Your task to perform on an android device: toggle javascript in the chrome app Image 0: 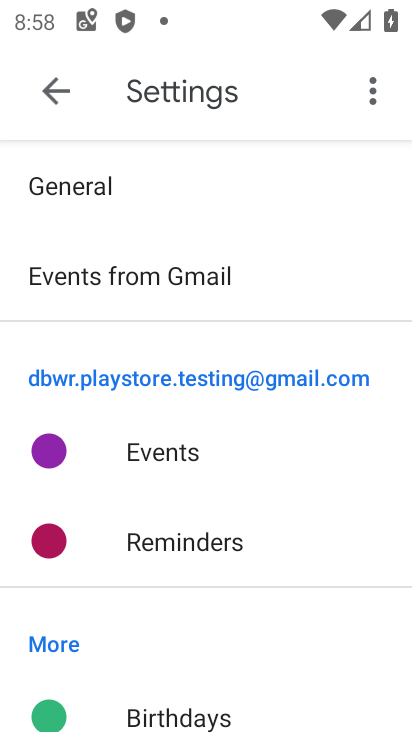
Step 0: press home button
Your task to perform on an android device: toggle javascript in the chrome app Image 1: 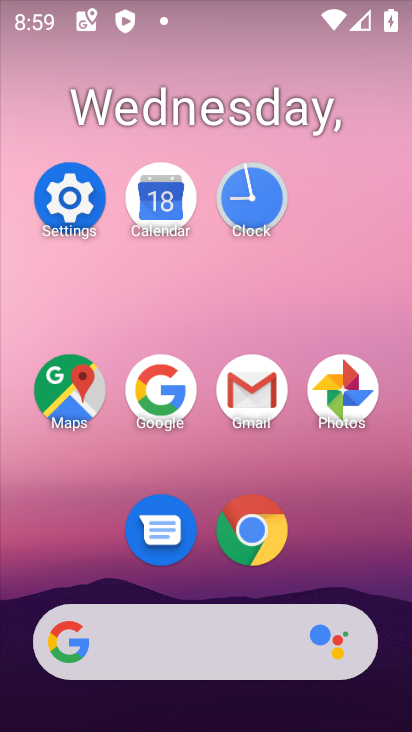
Step 1: click (230, 539)
Your task to perform on an android device: toggle javascript in the chrome app Image 2: 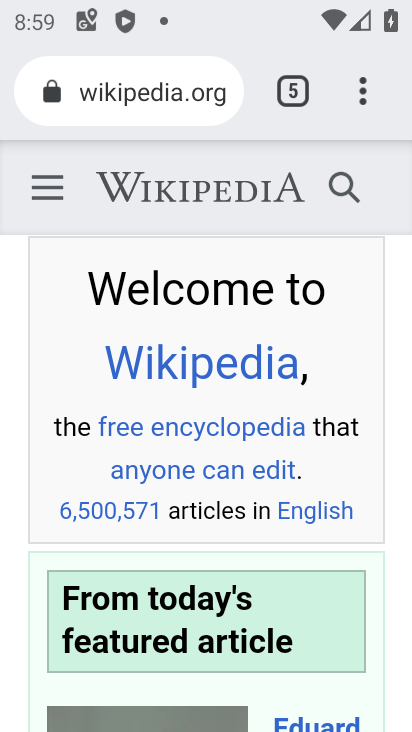
Step 2: click (351, 87)
Your task to perform on an android device: toggle javascript in the chrome app Image 3: 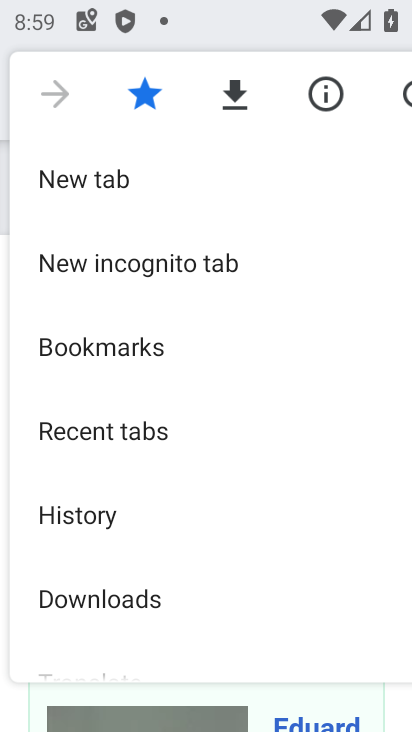
Step 3: drag from (208, 479) to (264, 190)
Your task to perform on an android device: toggle javascript in the chrome app Image 4: 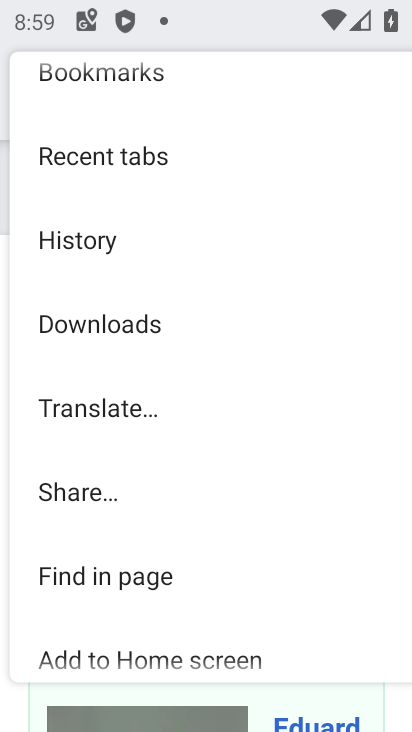
Step 4: drag from (196, 545) to (237, 202)
Your task to perform on an android device: toggle javascript in the chrome app Image 5: 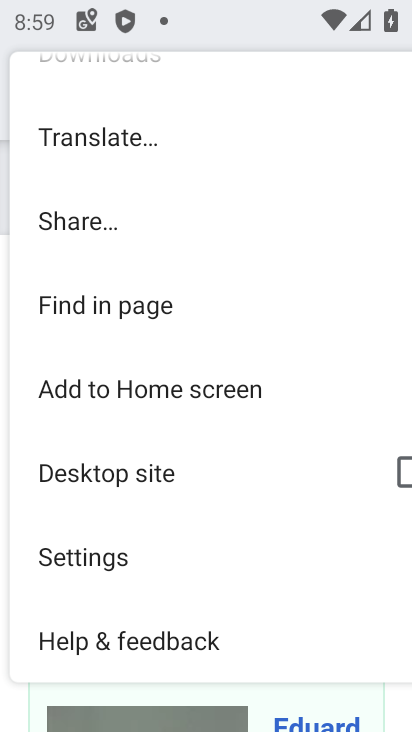
Step 5: click (171, 533)
Your task to perform on an android device: toggle javascript in the chrome app Image 6: 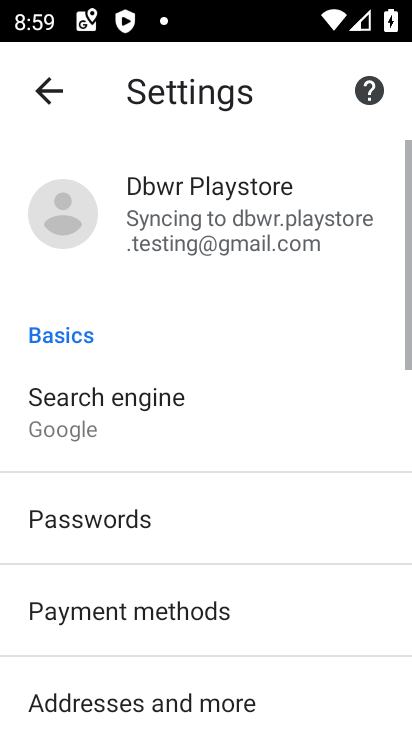
Step 6: drag from (170, 489) to (228, 177)
Your task to perform on an android device: toggle javascript in the chrome app Image 7: 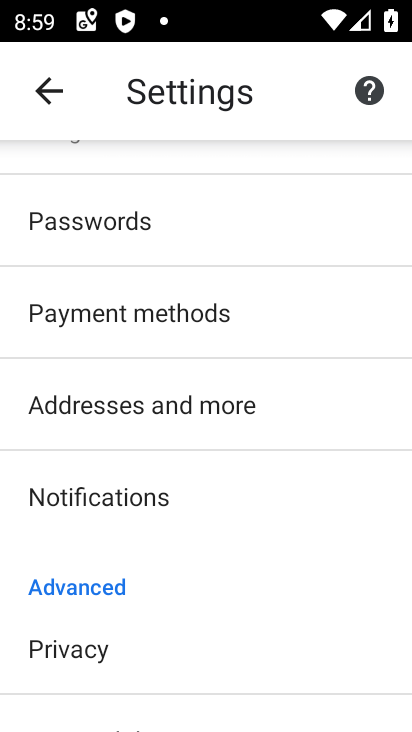
Step 7: drag from (144, 636) to (188, 272)
Your task to perform on an android device: toggle javascript in the chrome app Image 8: 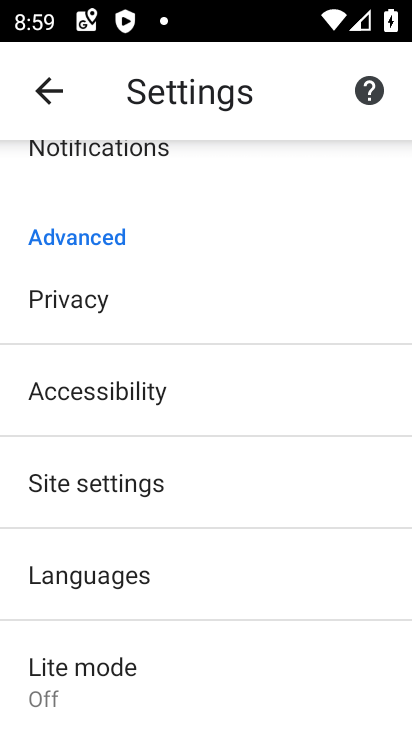
Step 8: click (135, 514)
Your task to perform on an android device: toggle javascript in the chrome app Image 9: 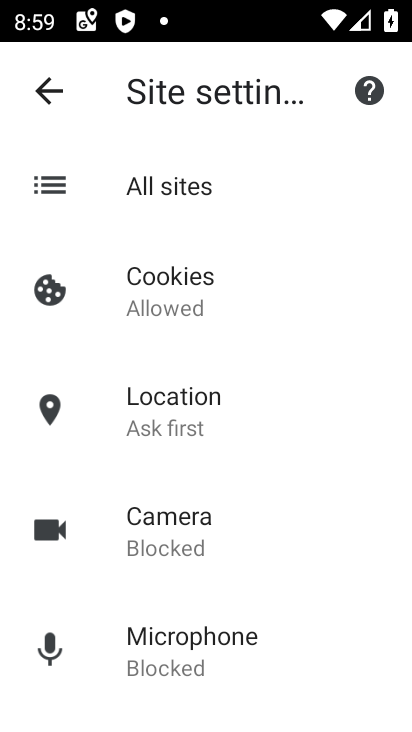
Step 9: drag from (253, 537) to (274, 173)
Your task to perform on an android device: toggle javascript in the chrome app Image 10: 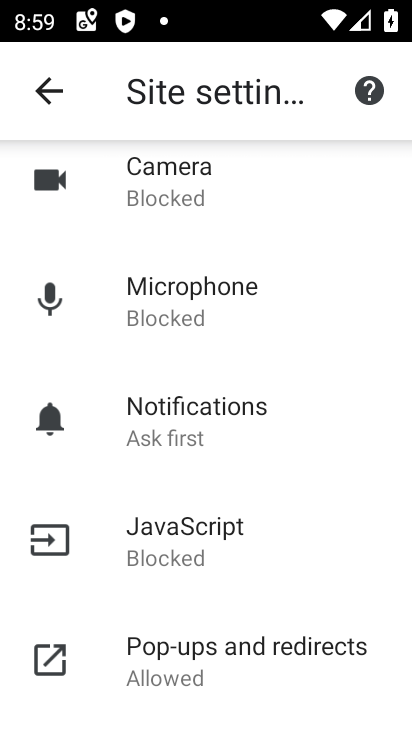
Step 10: click (297, 516)
Your task to perform on an android device: toggle javascript in the chrome app Image 11: 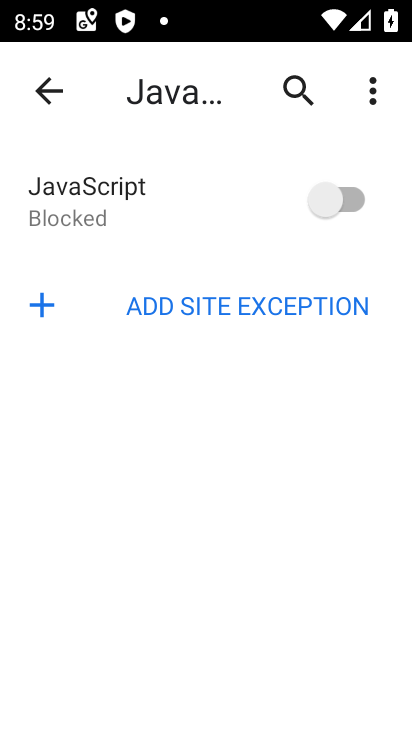
Step 11: click (328, 223)
Your task to perform on an android device: toggle javascript in the chrome app Image 12: 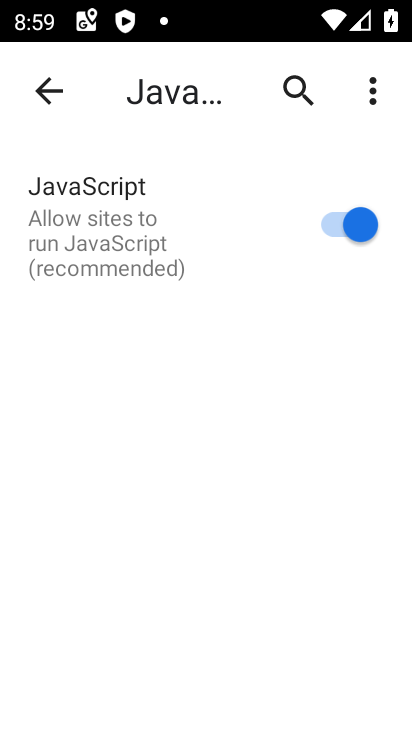
Step 12: task complete